Your task to perform on an android device: Open ESPN.com Image 0: 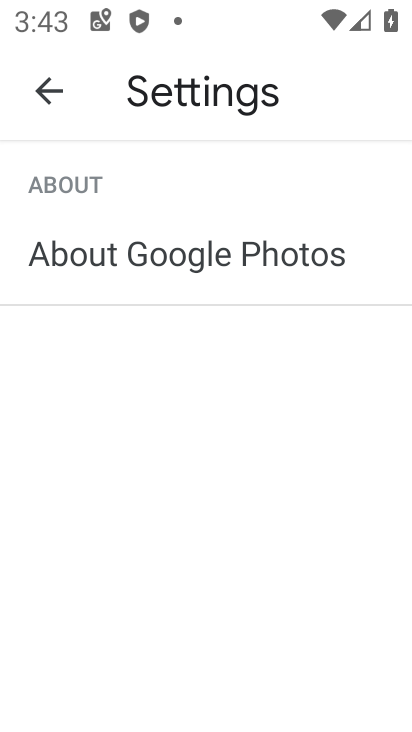
Step 0: press home button
Your task to perform on an android device: Open ESPN.com Image 1: 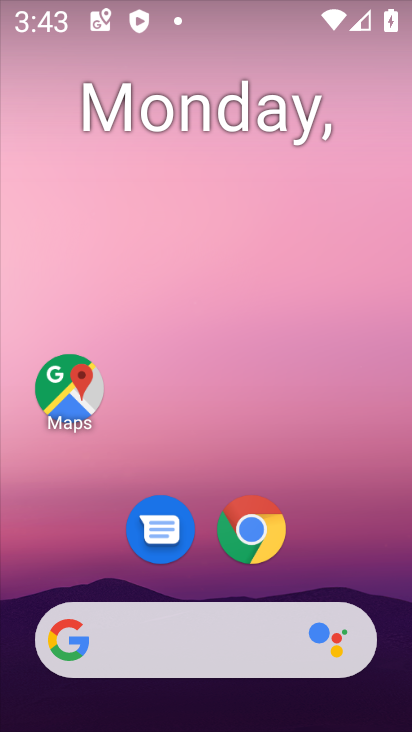
Step 1: click (238, 512)
Your task to perform on an android device: Open ESPN.com Image 2: 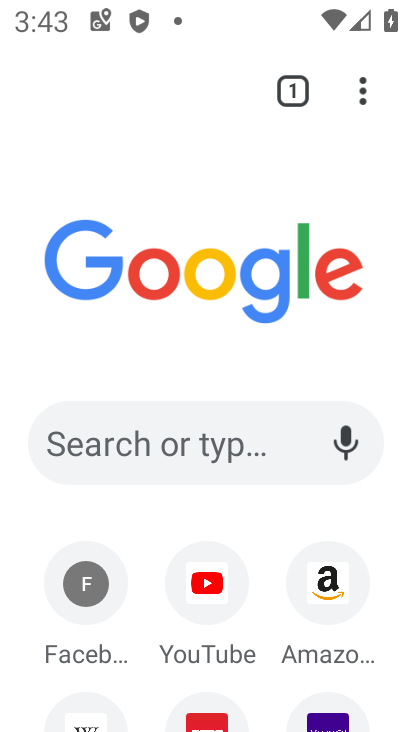
Step 2: click (219, 706)
Your task to perform on an android device: Open ESPN.com Image 3: 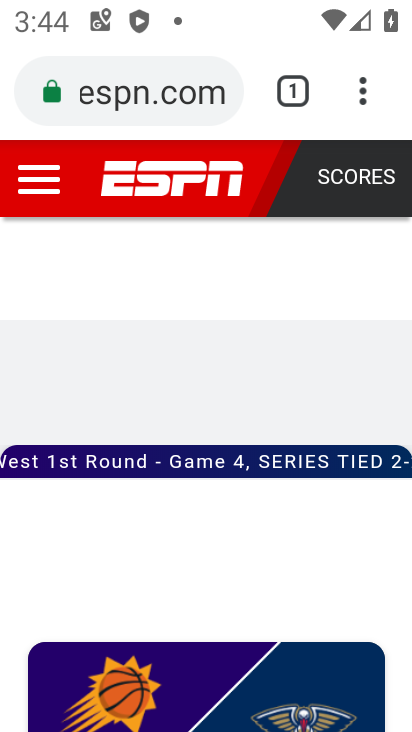
Step 3: task complete